Your task to perform on an android device: What is the news today? Image 0: 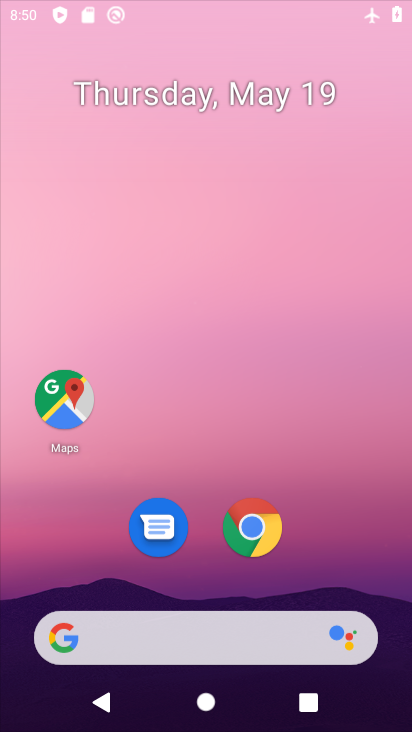
Step 0: click (292, 93)
Your task to perform on an android device: What is the news today? Image 1: 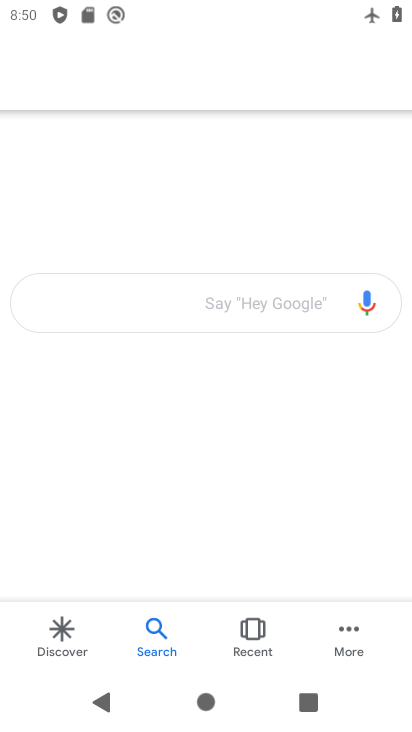
Step 1: press home button
Your task to perform on an android device: What is the news today? Image 2: 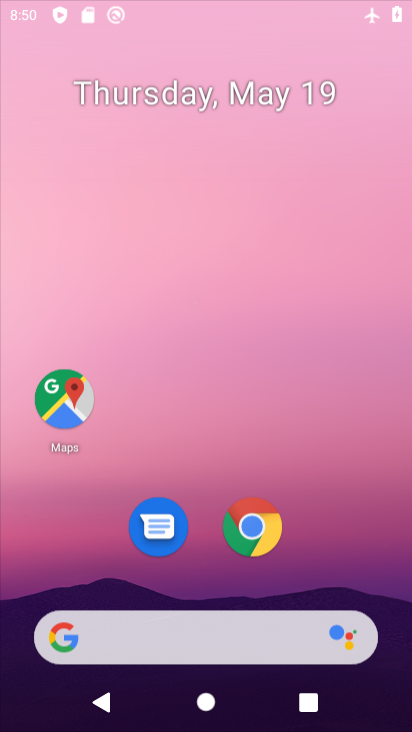
Step 2: drag from (146, 553) to (218, 92)
Your task to perform on an android device: What is the news today? Image 3: 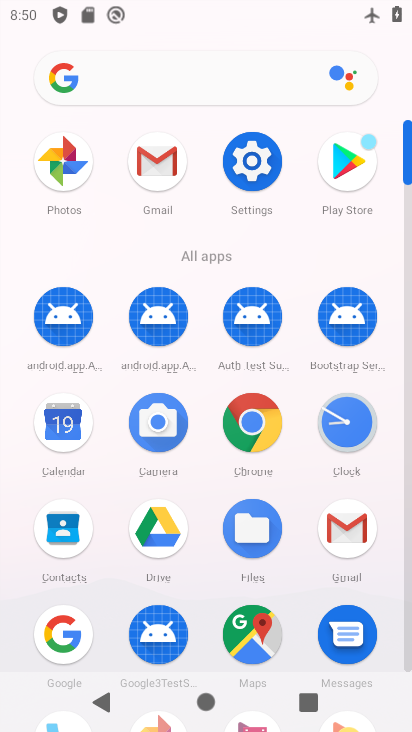
Step 3: click (135, 74)
Your task to perform on an android device: What is the news today? Image 4: 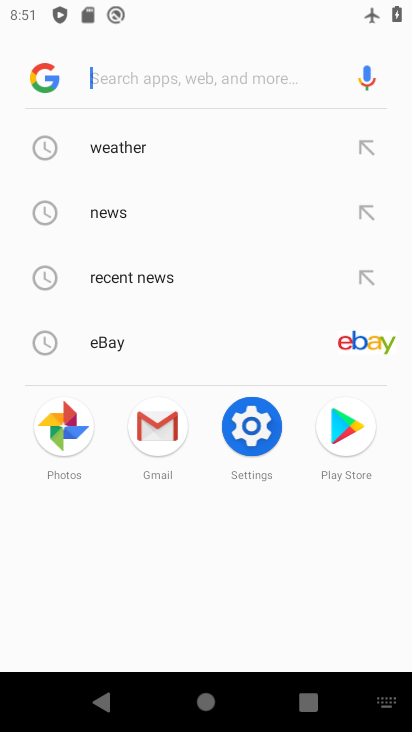
Step 4: type "news today"
Your task to perform on an android device: What is the news today? Image 5: 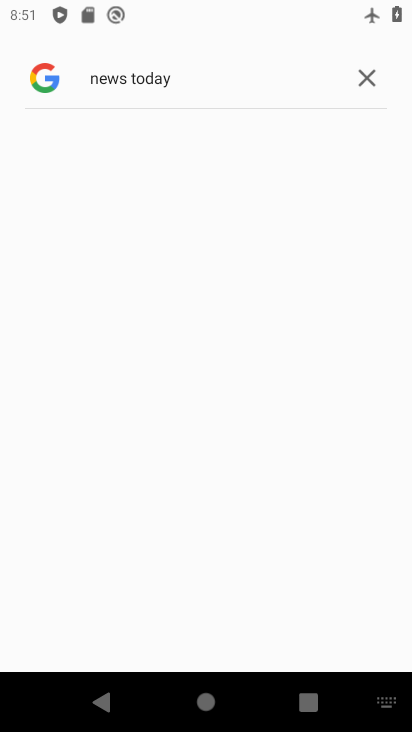
Step 5: task complete